Your task to perform on an android device: Open Google Chrome and click the shortcut for Amazon.com Image 0: 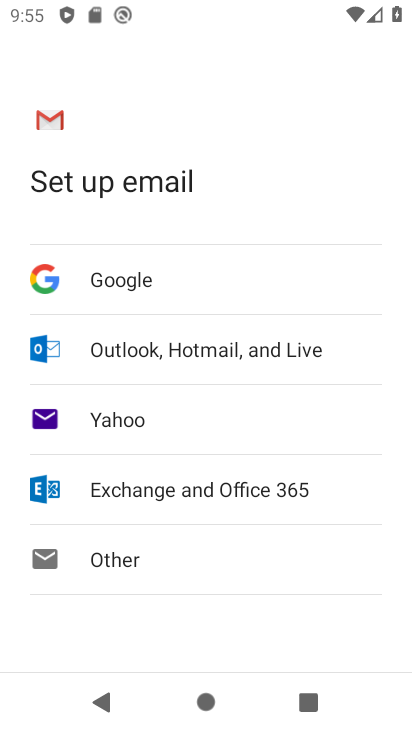
Step 0: press home button
Your task to perform on an android device: Open Google Chrome and click the shortcut for Amazon.com Image 1: 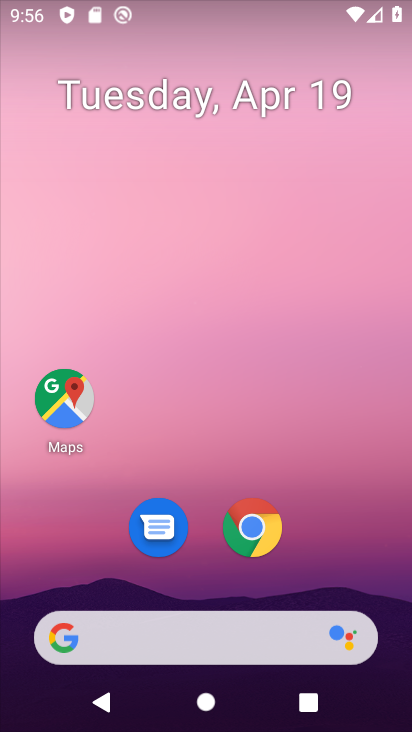
Step 1: drag from (343, 511) to (287, 144)
Your task to perform on an android device: Open Google Chrome and click the shortcut for Amazon.com Image 2: 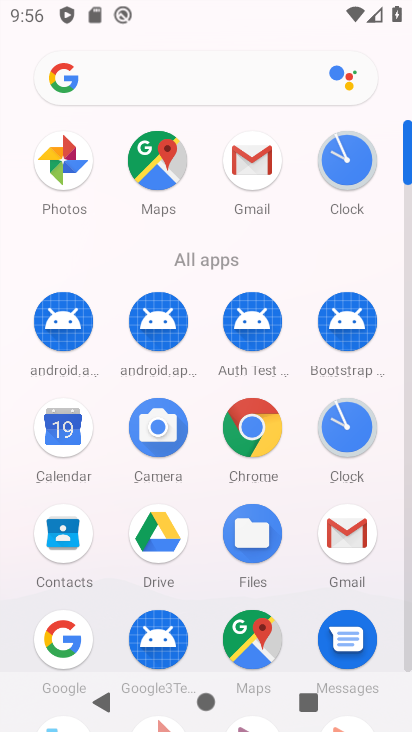
Step 2: click (242, 439)
Your task to perform on an android device: Open Google Chrome and click the shortcut for Amazon.com Image 3: 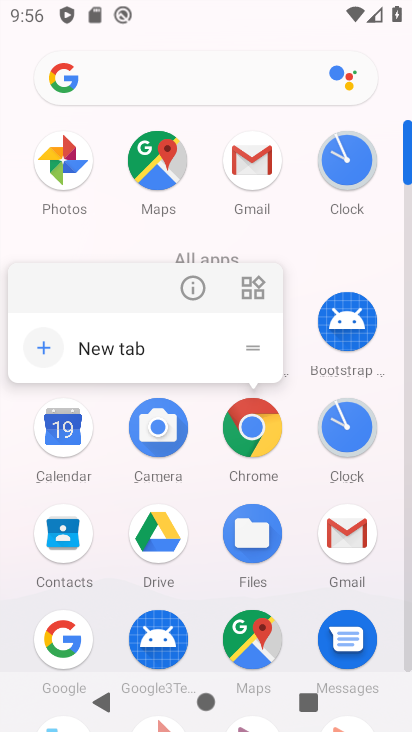
Step 3: click (252, 438)
Your task to perform on an android device: Open Google Chrome and click the shortcut for Amazon.com Image 4: 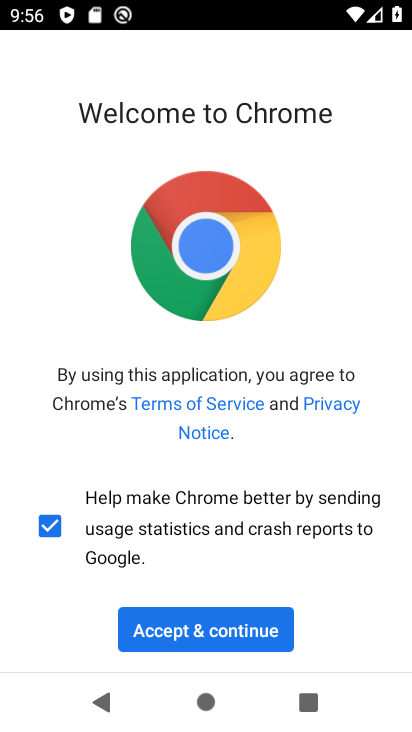
Step 4: click (241, 640)
Your task to perform on an android device: Open Google Chrome and click the shortcut for Amazon.com Image 5: 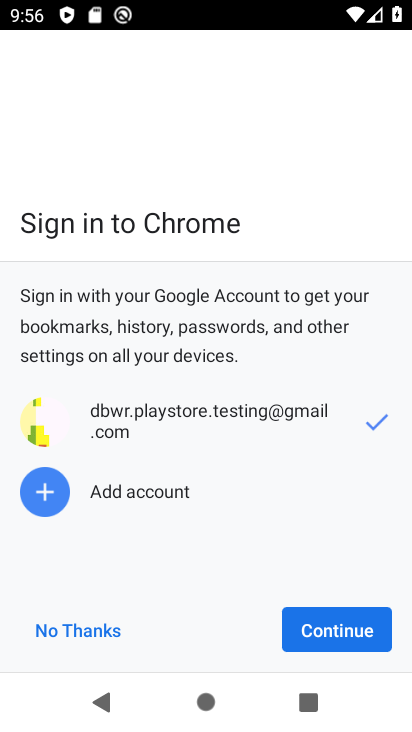
Step 5: click (317, 634)
Your task to perform on an android device: Open Google Chrome and click the shortcut for Amazon.com Image 6: 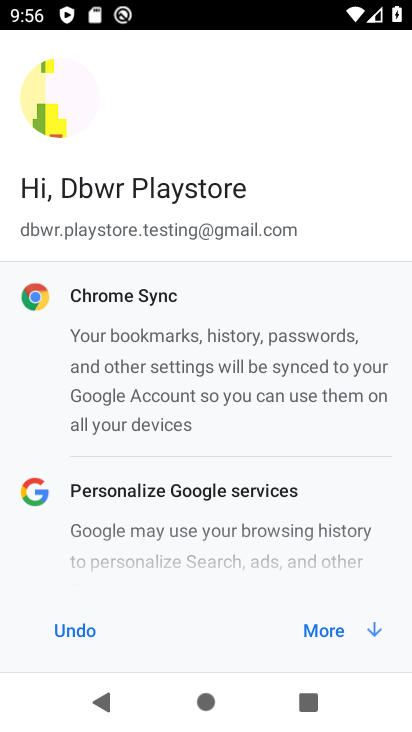
Step 6: click (329, 635)
Your task to perform on an android device: Open Google Chrome and click the shortcut for Amazon.com Image 7: 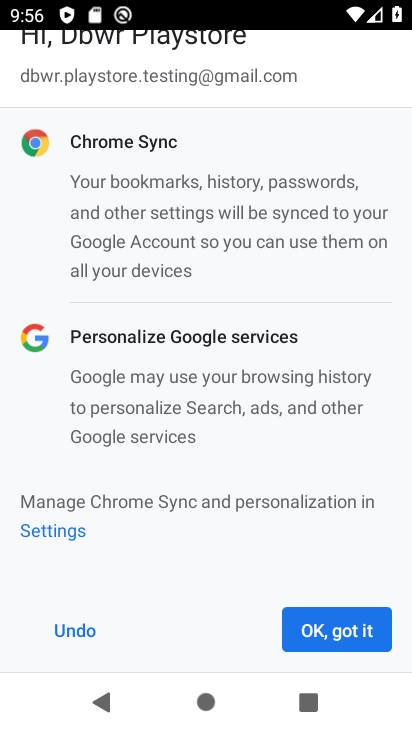
Step 7: click (324, 639)
Your task to perform on an android device: Open Google Chrome and click the shortcut for Amazon.com Image 8: 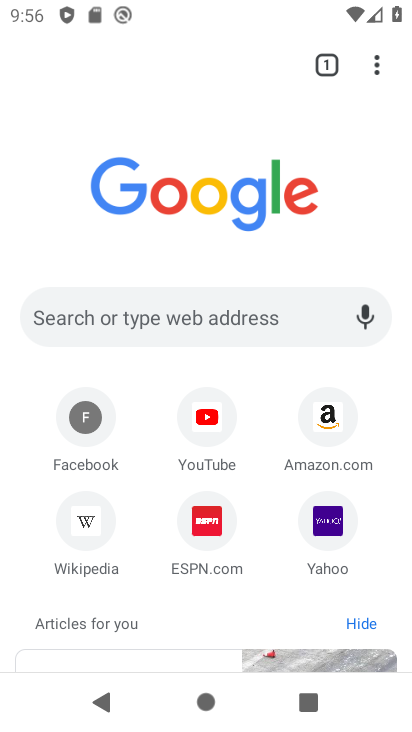
Step 8: click (137, 316)
Your task to perform on an android device: Open Google Chrome and click the shortcut for Amazon.com Image 9: 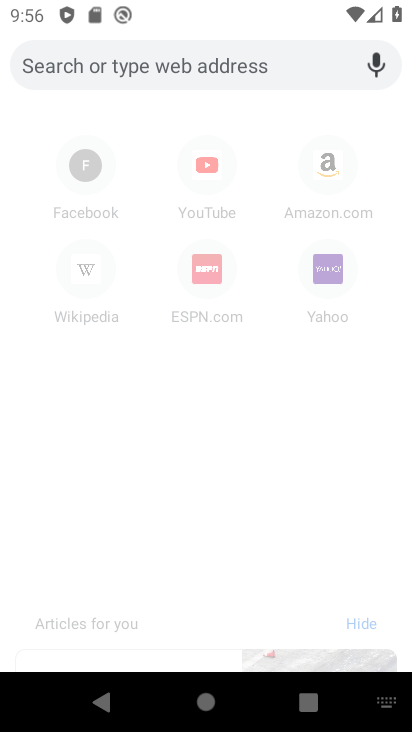
Step 9: click (318, 157)
Your task to perform on an android device: Open Google Chrome and click the shortcut for Amazon.com Image 10: 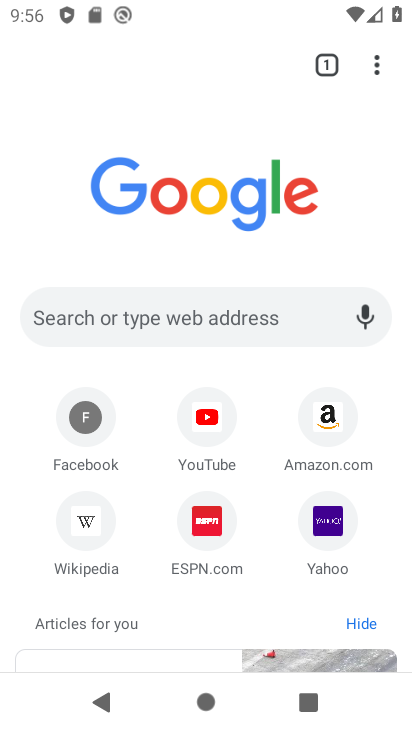
Step 10: click (315, 419)
Your task to perform on an android device: Open Google Chrome and click the shortcut for Amazon.com Image 11: 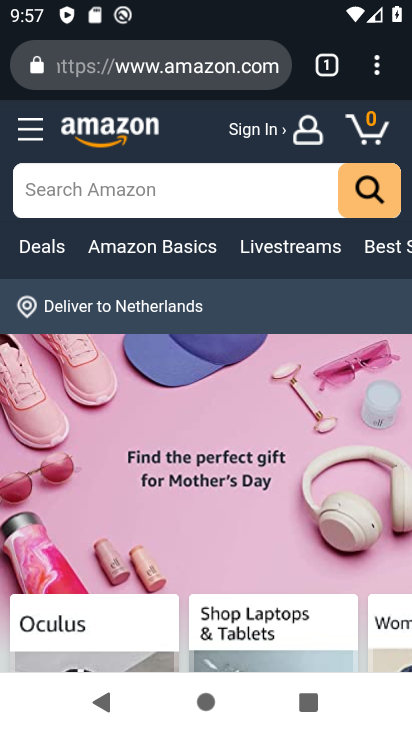
Step 11: task complete